Your task to perform on an android device: Do I have any events this weekend? Image 0: 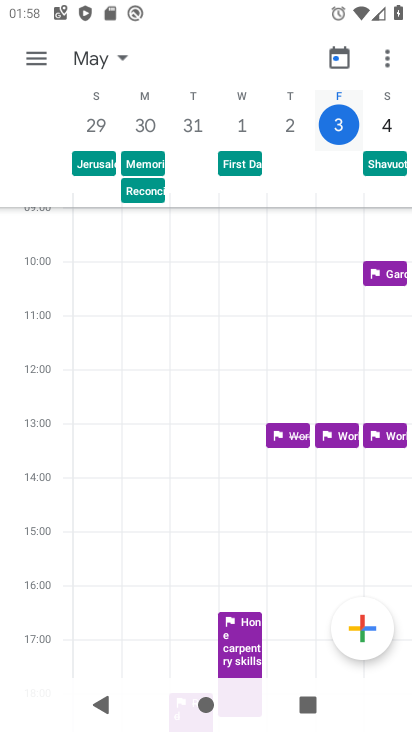
Step 0: click (18, 66)
Your task to perform on an android device: Do I have any events this weekend? Image 1: 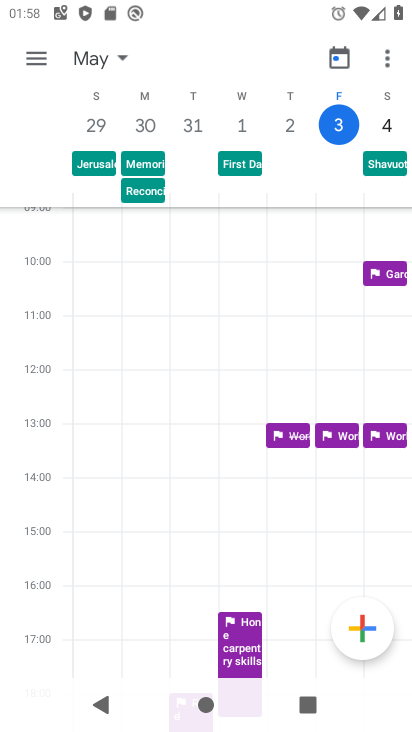
Step 1: click (29, 47)
Your task to perform on an android device: Do I have any events this weekend? Image 2: 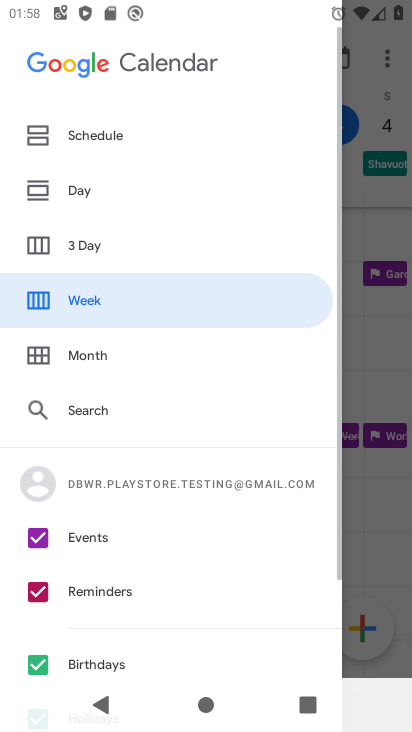
Step 2: click (148, 306)
Your task to perform on an android device: Do I have any events this weekend? Image 3: 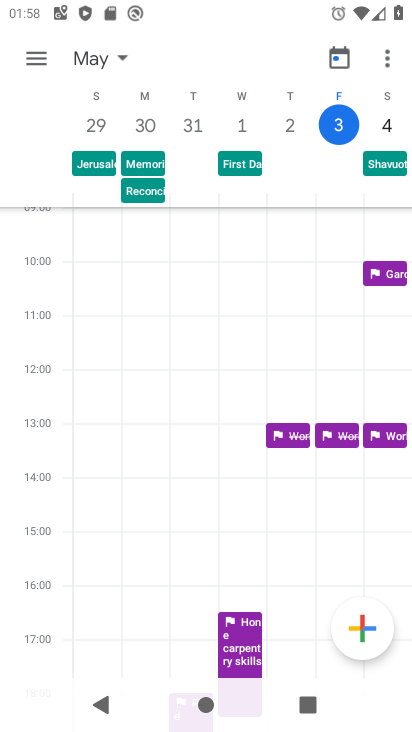
Step 3: task complete